Your task to perform on an android device: Open network settings Image 0: 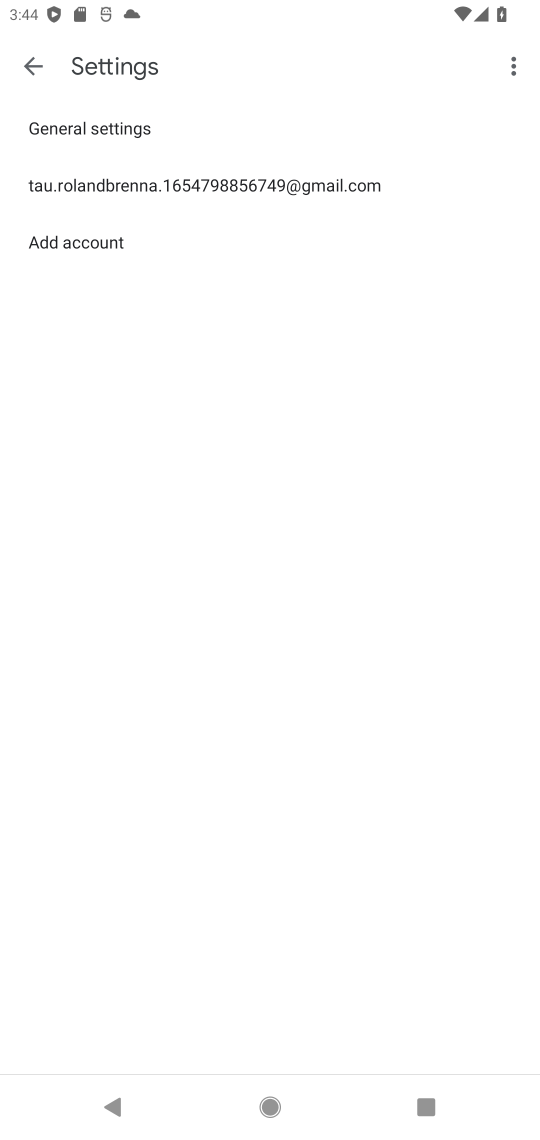
Step 0: click (25, 74)
Your task to perform on an android device: Open network settings Image 1: 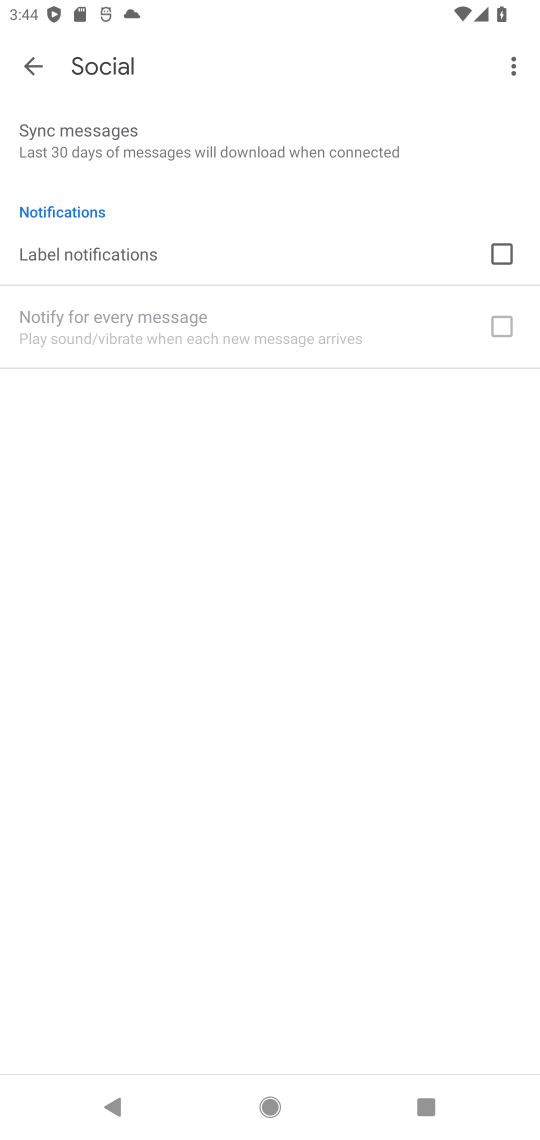
Step 1: click (22, 66)
Your task to perform on an android device: Open network settings Image 2: 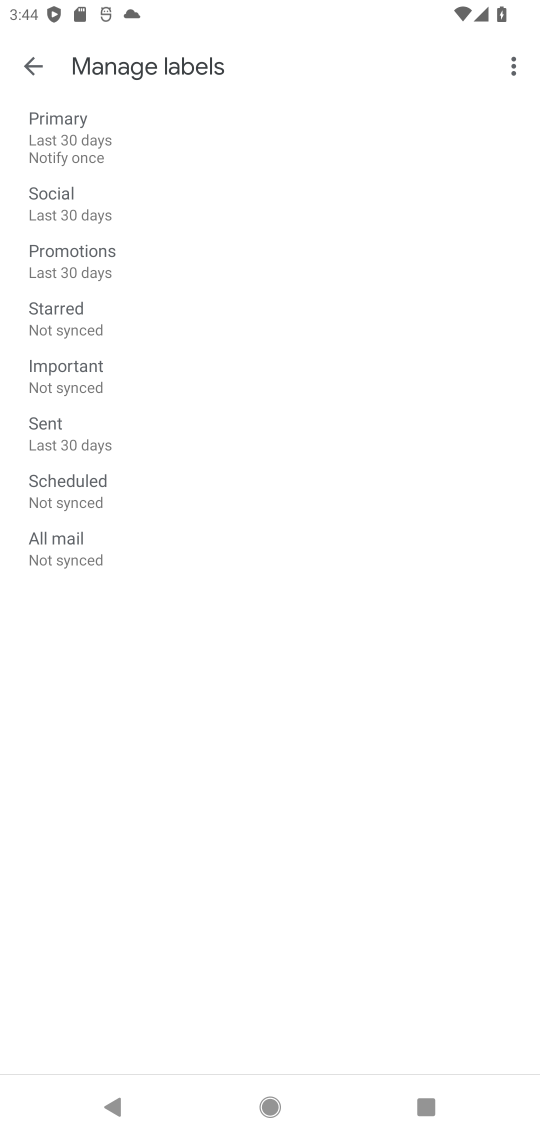
Step 2: click (30, 80)
Your task to perform on an android device: Open network settings Image 3: 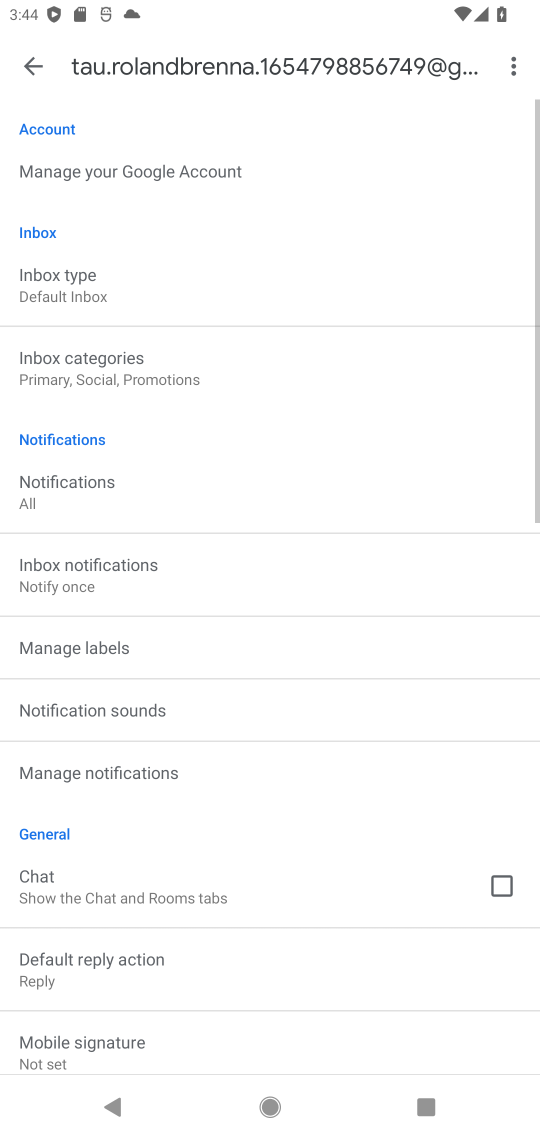
Step 3: press home button
Your task to perform on an android device: Open network settings Image 4: 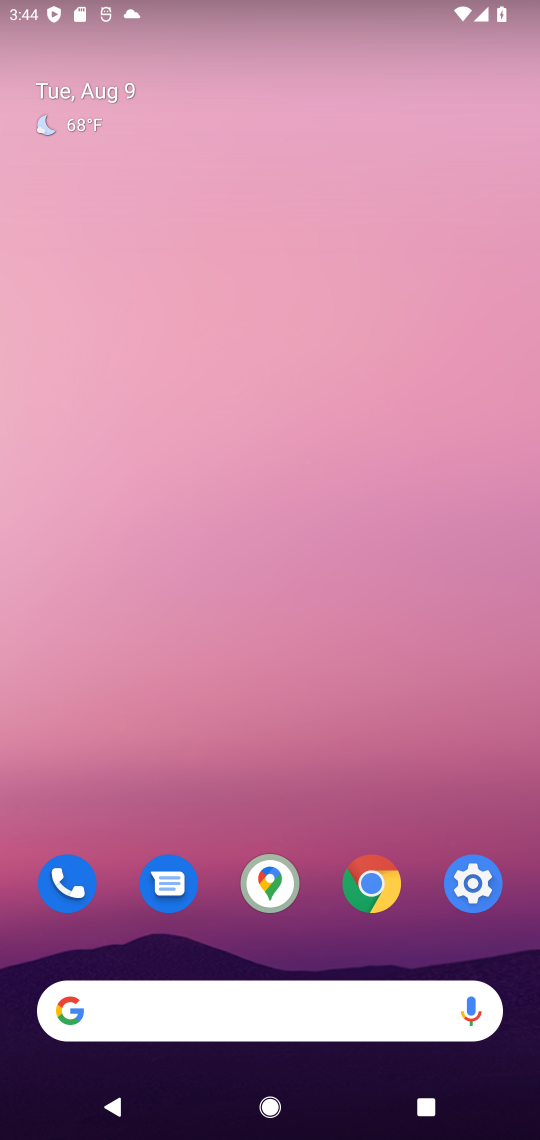
Step 4: drag from (337, 942) to (213, 138)
Your task to perform on an android device: Open network settings Image 5: 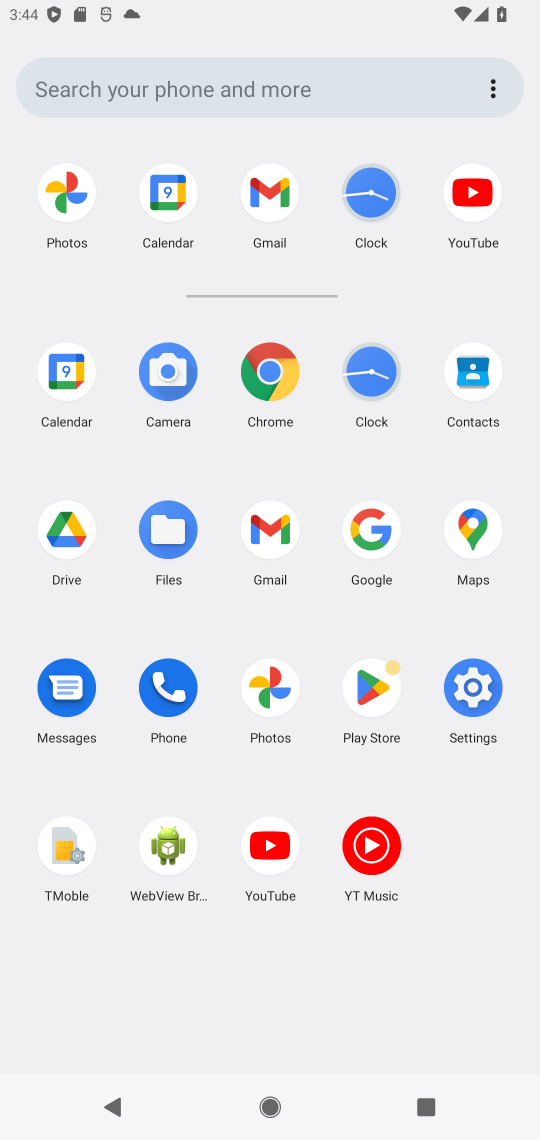
Step 5: click (459, 713)
Your task to perform on an android device: Open network settings Image 6: 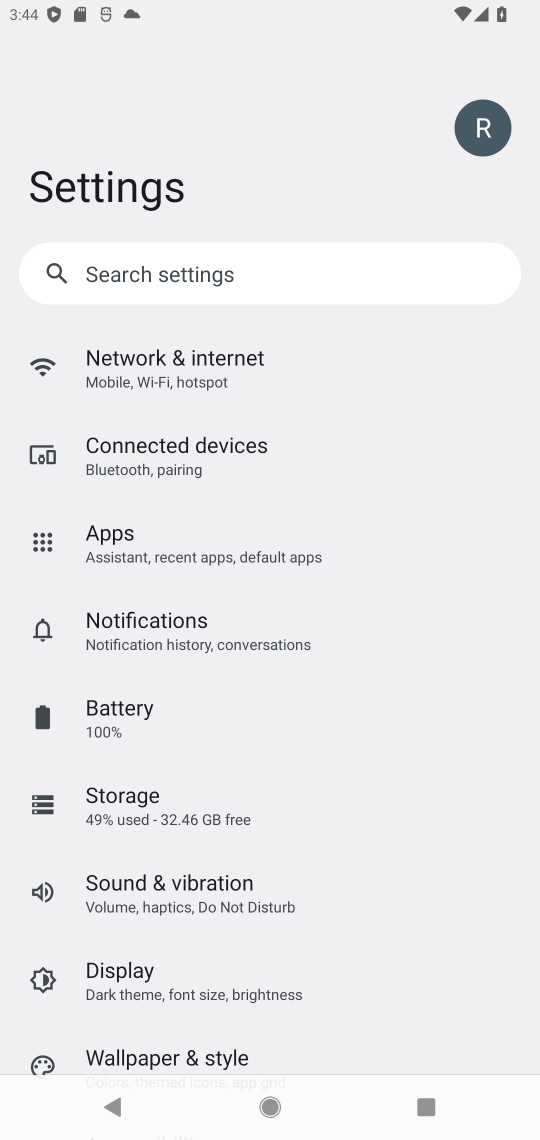
Step 6: click (238, 363)
Your task to perform on an android device: Open network settings Image 7: 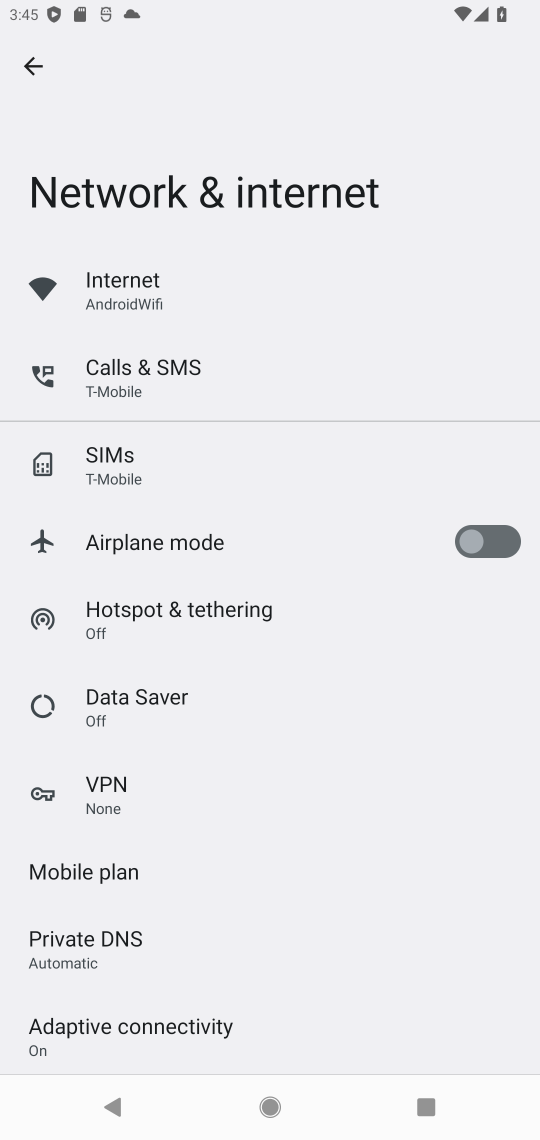
Step 7: task complete